Your task to perform on an android device: Clear all items from cart on amazon. Image 0: 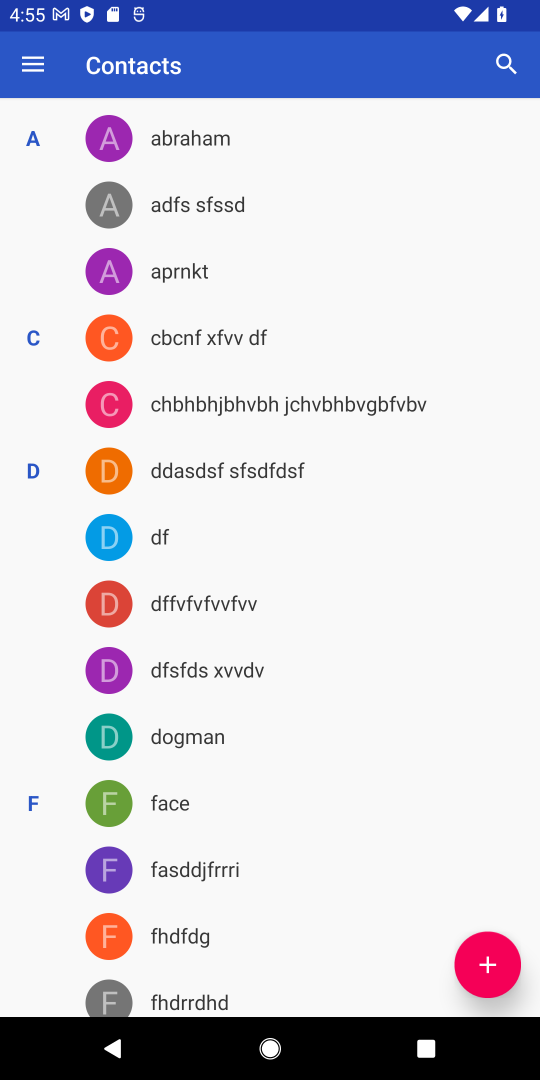
Step 0: press home button
Your task to perform on an android device: Clear all items from cart on amazon. Image 1: 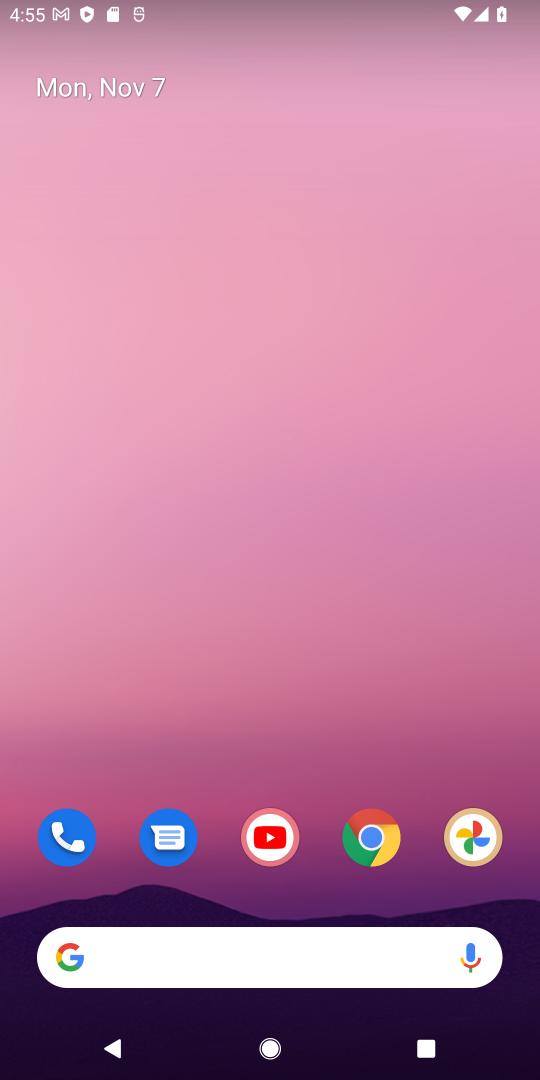
Step 1: click (381, 842)
Your task to perform on an android device: Clear all items from cart on amazon. Image 2: 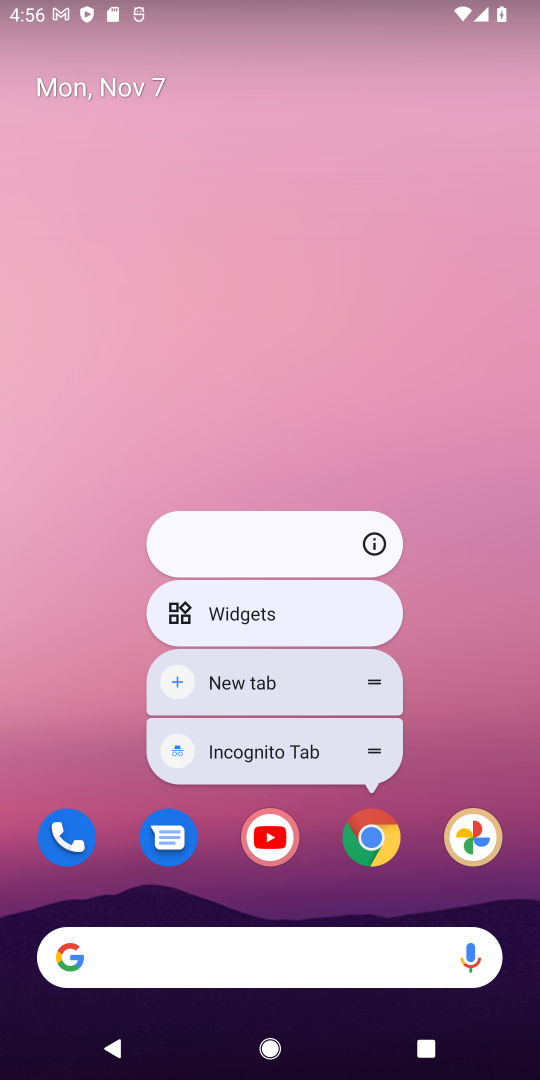
Step 2: click (381, 842)
Your task to perform on an android device: Clear all items from cart on amazon. Image 3: 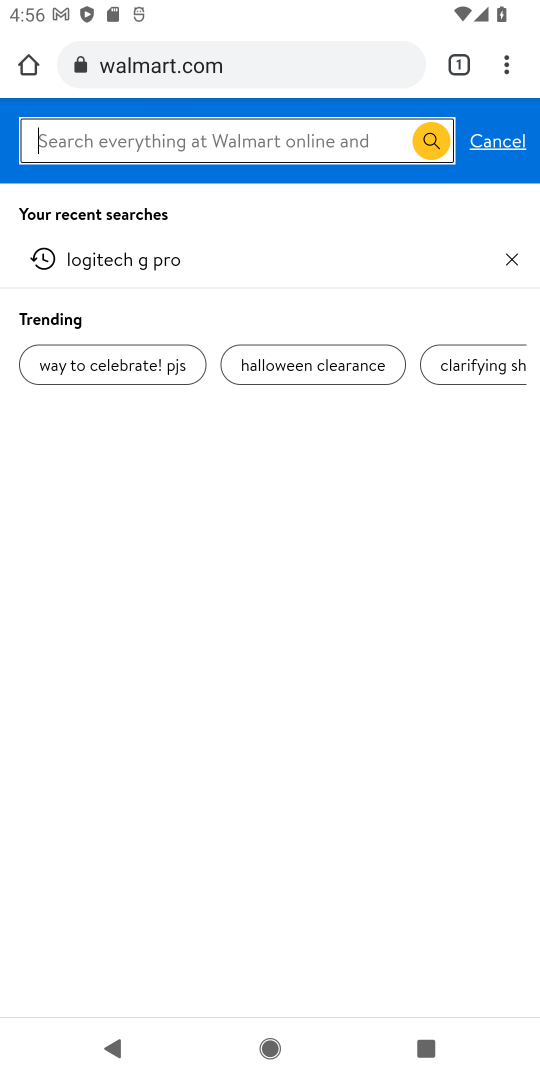
Step 3: click (202, 62)
Your task to perform on an android device: Clear all items from cart on amazon. Image 4: 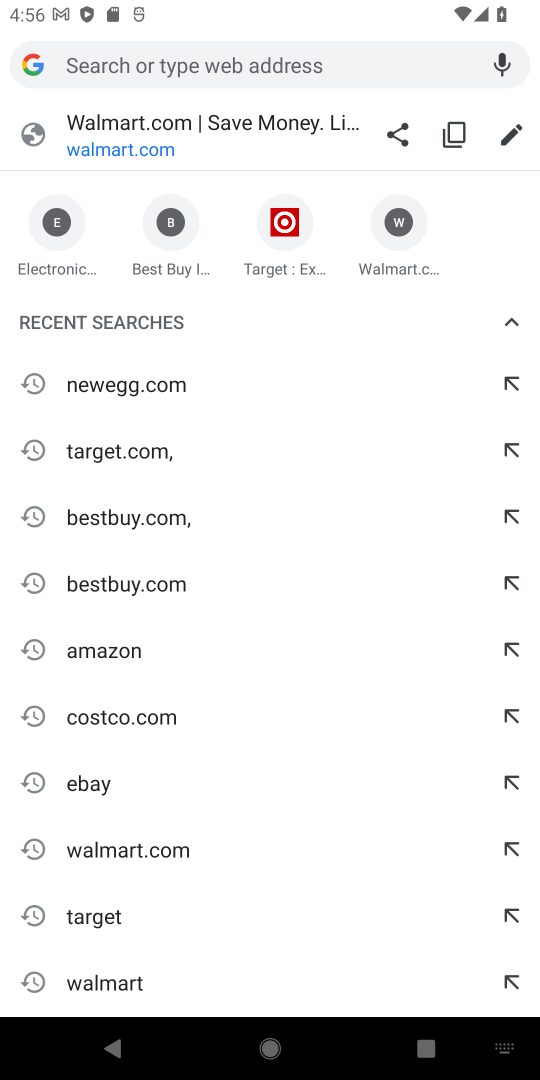
Step 4: type "amazon"
Your task to perform on an android device: Clear all items from cart on amazon. Image 5: 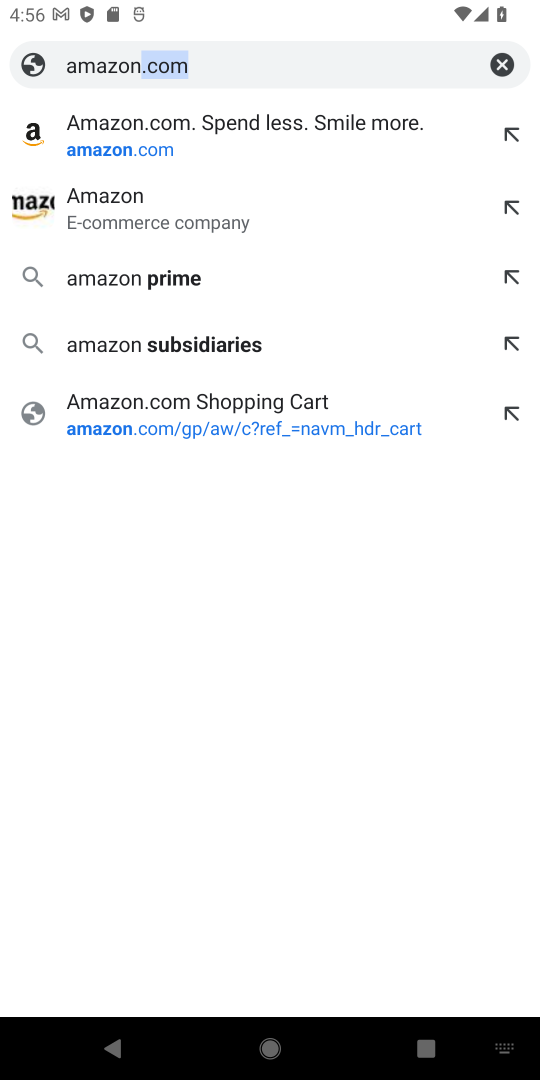
Step 5: click (281, 138)
Your task to perform on an android device: Clear all items from cart on amazon. Image 6: 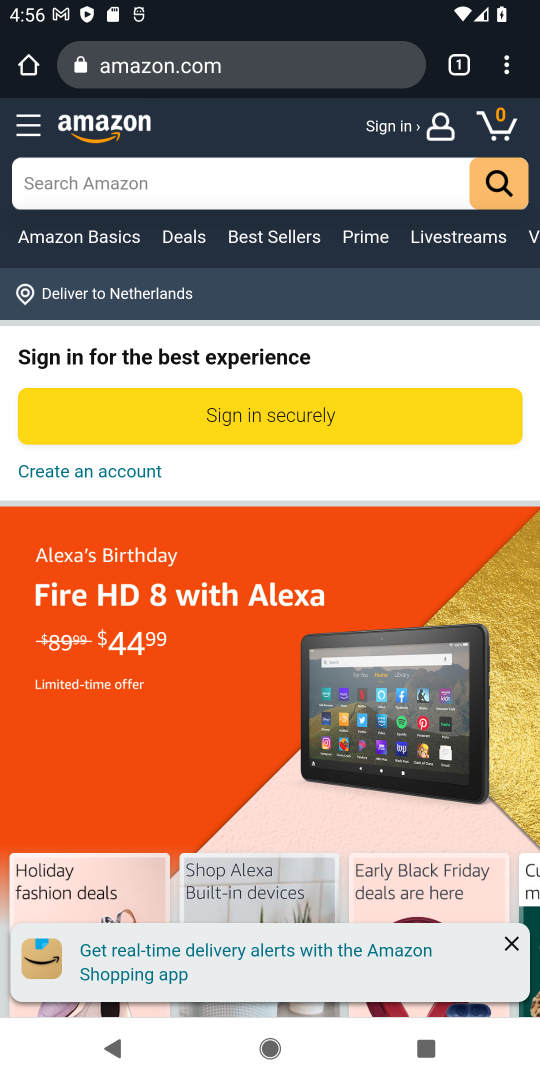
Step 6: click (494, 127)
Your task to perform on an android device: Clear all items from cart on amazon. Image 7: 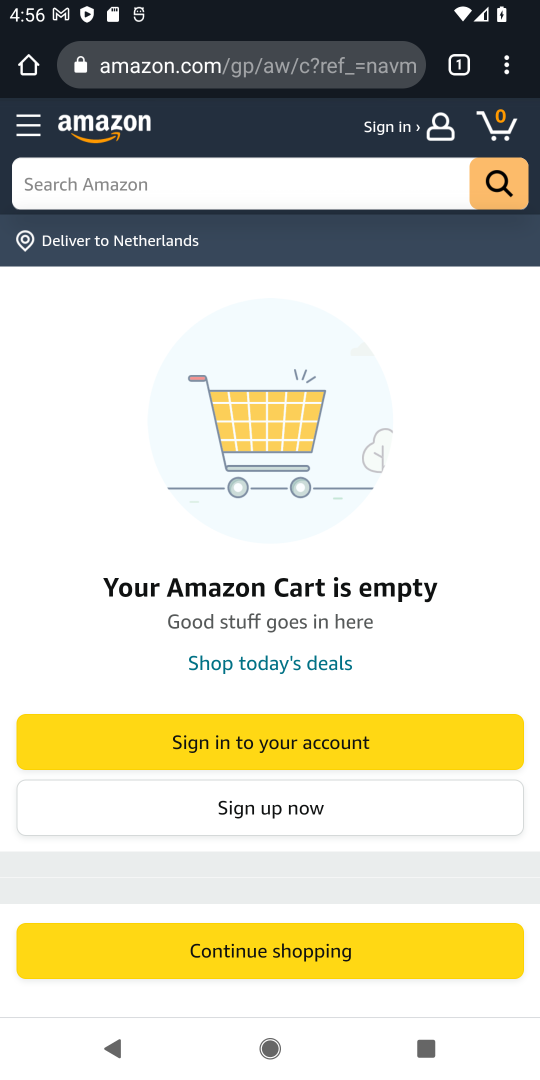
Step 7: task complete